Your task to perform on an android device: toggle improve location accuracy Image 0: 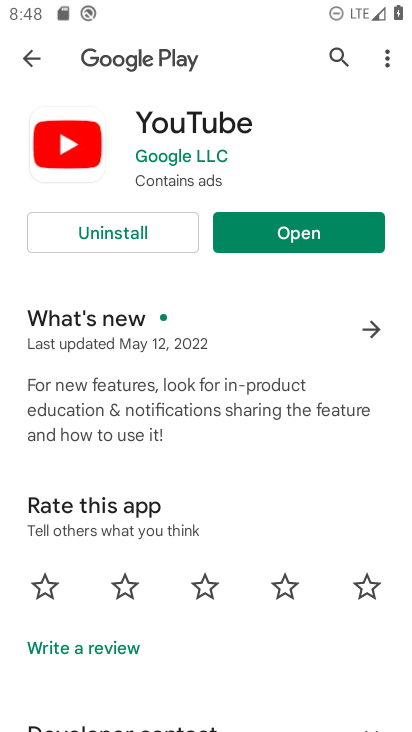
Step 0: press home button
Your task to perform on an android device: toggle improve location accuracy Image 1: 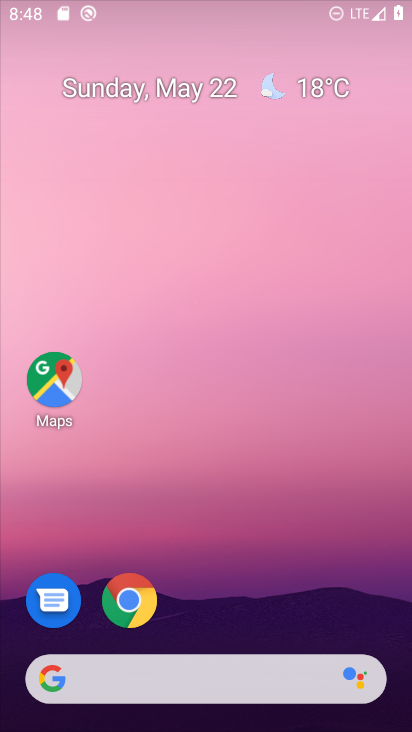
Step 1: drag from (371, 613) to (287, 36)
Your task to perform on an android device: toggle improve location accuracy Image 2: 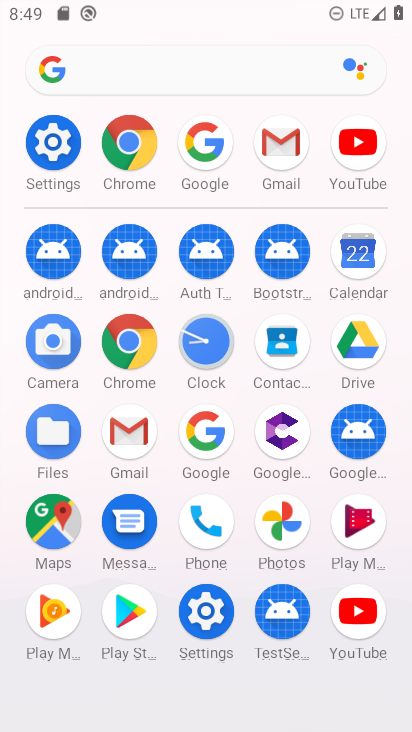
Step 2: click (51, 133)
Your task to perform on an android device: toggle improve location accuracy Image 3: 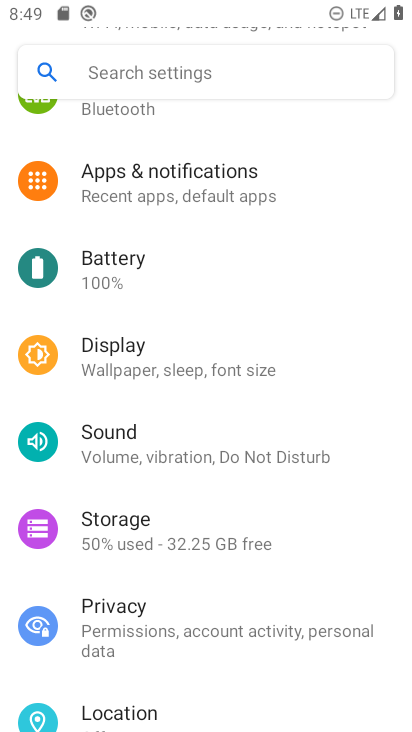
Step 3: click (133, 718)
Your task to perform on an android device: toggle improve location accuracy Image 4: 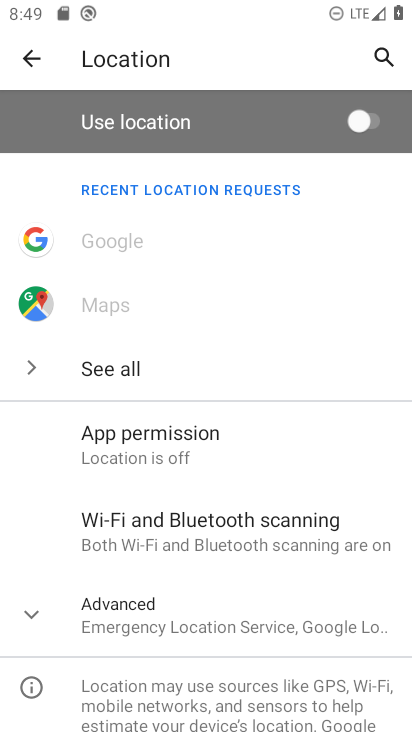
Step 4: click (156, 630)
Your task to perform on an android device: toggle improve location accuracy Image 5: 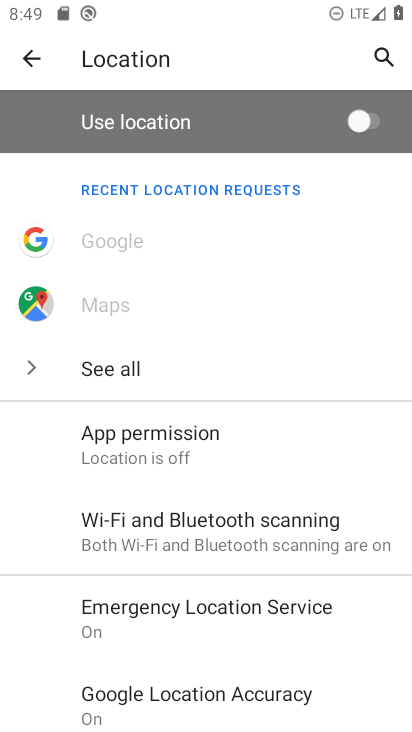
Step 5: click (222, 709)
Your task to perform on an android device: toggle improve location accuracy Image 6: 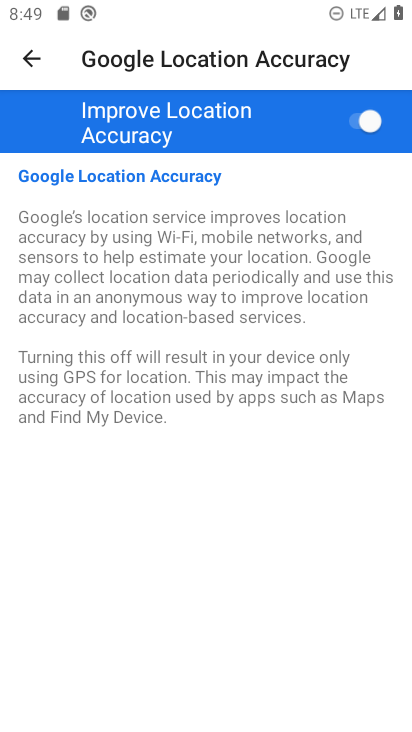
Step 6: click (360, 128)
Your task to perform on an android device: toggle improve location accuracy Image 7: 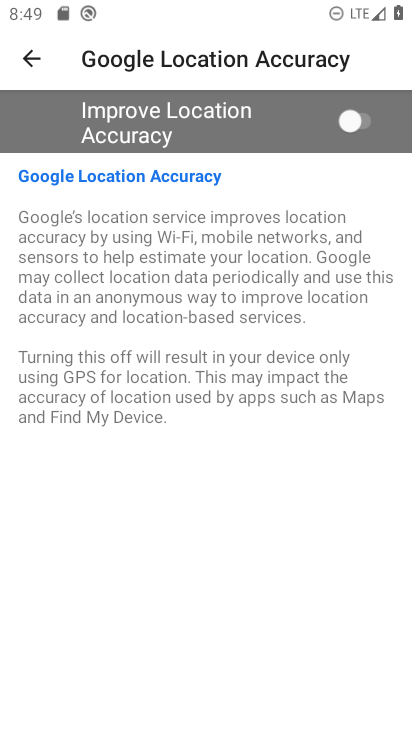
Step 7: task complete